Your task to perform on an android device: set an alarm Image 0: 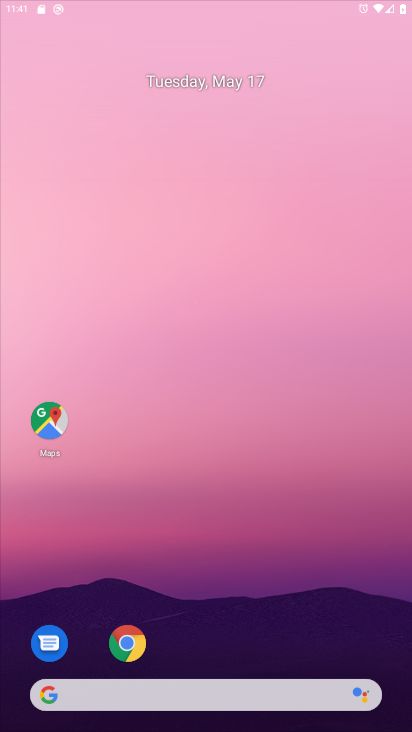
Step 0: press home button
Your task to perform on an android device: set an alarm Image 1: 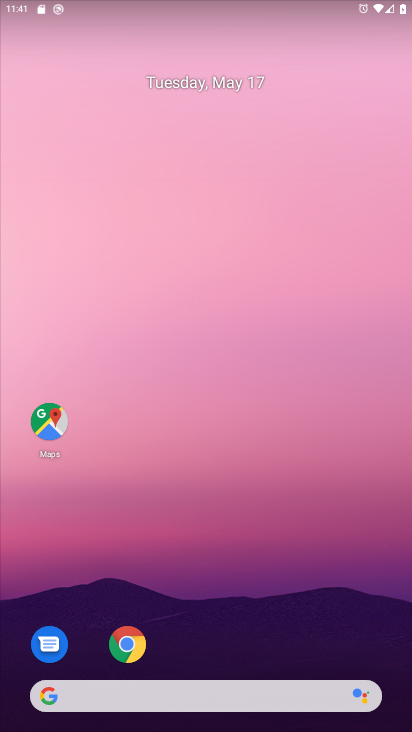
Step 1: click (47, 417)
Your task to perform on an android device: set an alarm Image 2: 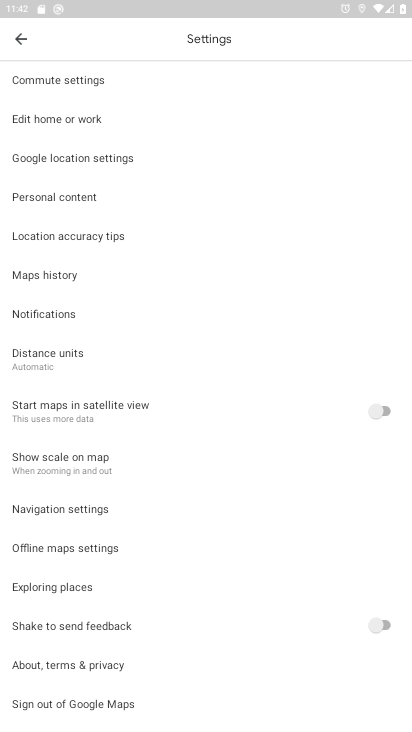
Step 2: press home button
Your task to perform on an android device: set an alarm Image 3: 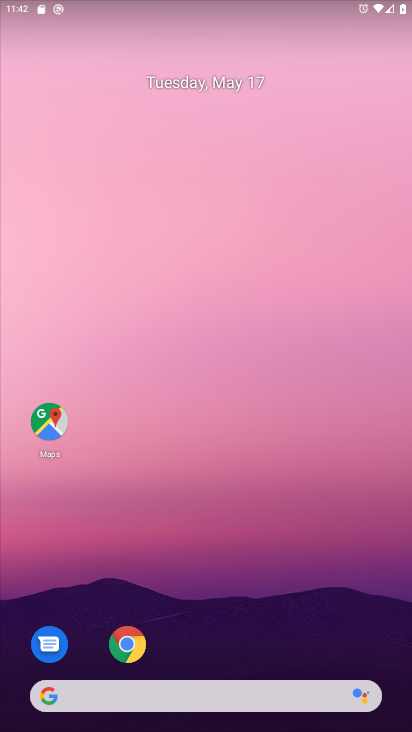
Step 3: drag from (202, 642) to (236, 94)
Your task to perform on an android device: set an alarm Image 4: 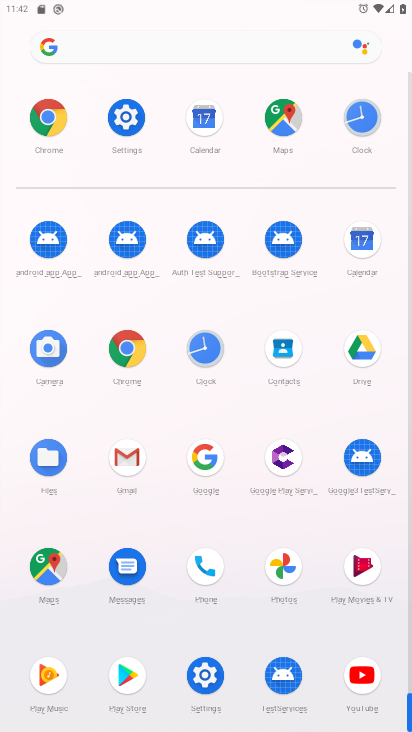
Step 4: click (359, 106)
Your task to perform on an android device: set an alarm Image 5: 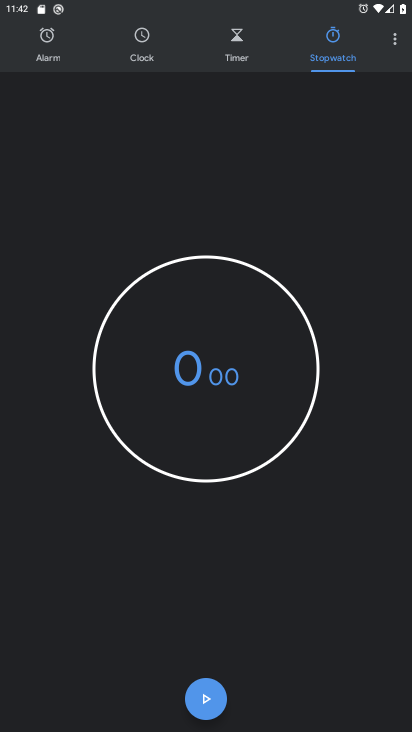
Step 5: click (43, 40)
Your task to perform on an android device: set an alarm Image 6: 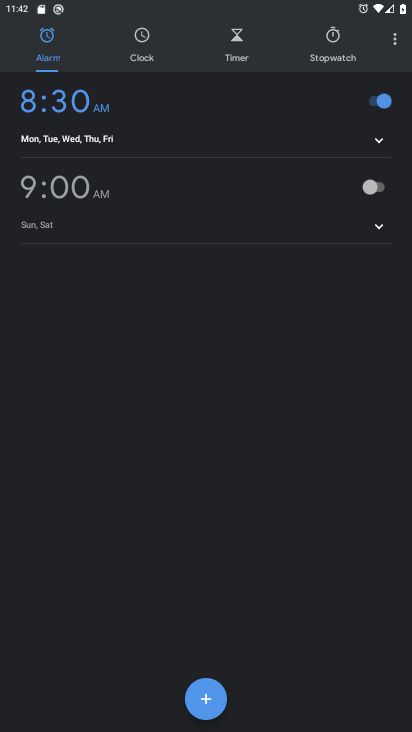
Step 6: task complete